Your task to perform on an android device: Toggle the flashlight Image 0: 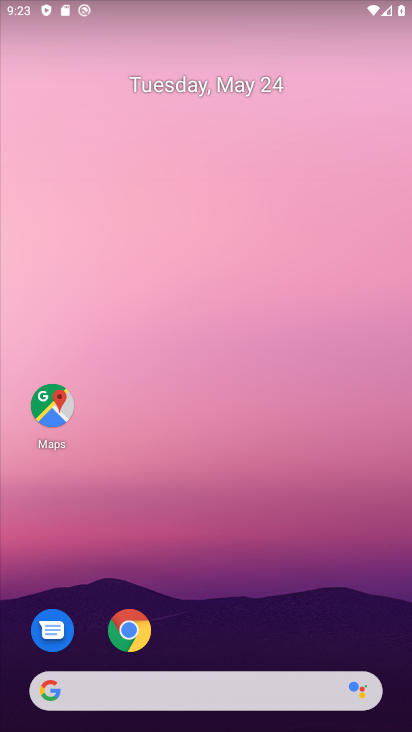
Step 0: drag from (383, 7) to (390, 462)
Your task to perform on an android device: Toggle the flashlight Image 1: 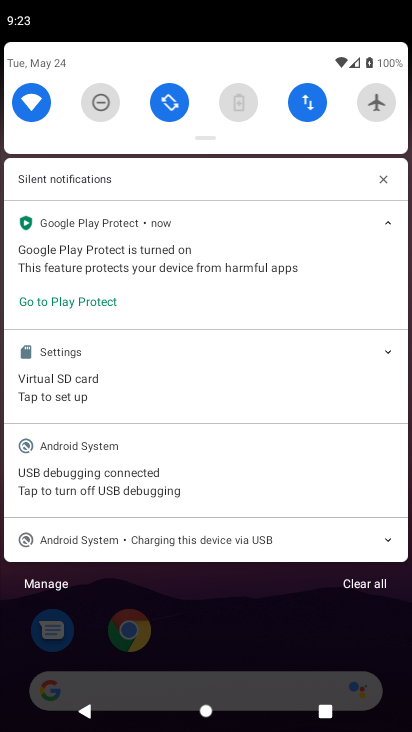
Step 1: drag from (263, 135) to (293, 584)
Your task to perform on an android device: Toggle the flashlight Image 2: 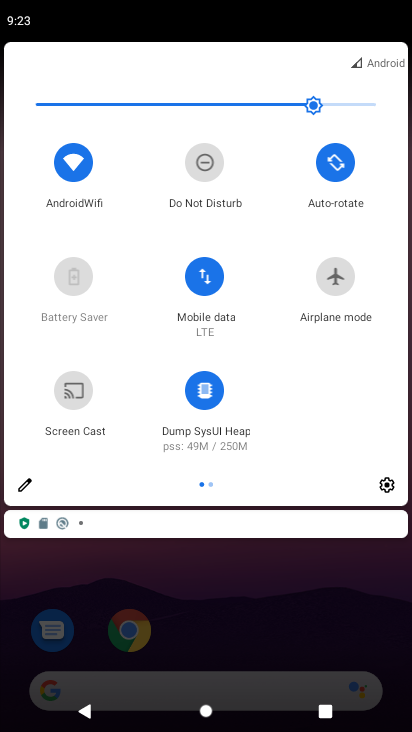
Step 2: click (16, 483)
Your task to perform on an android device: Toggle the flashlight Image 3: 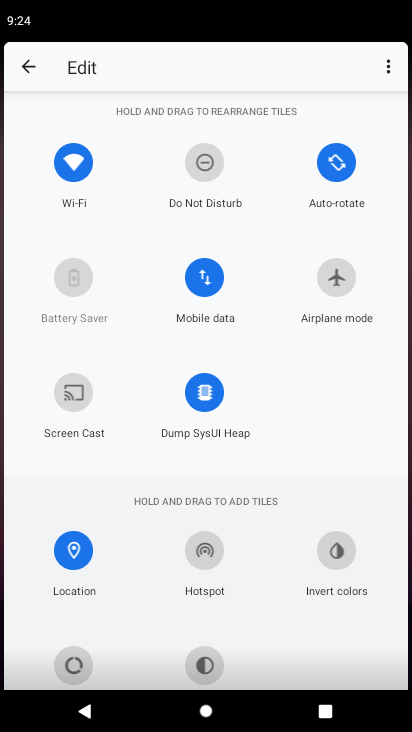
Step 3: task complete